Your task to perform on an android device: Check the news Image 0: 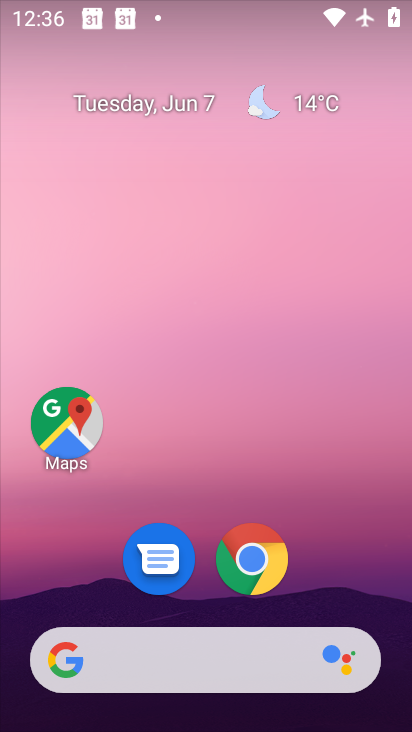
Step 0: drag from (6, 318) to (392, 264)
Your task to perform on an android device: Check the news Image 1: 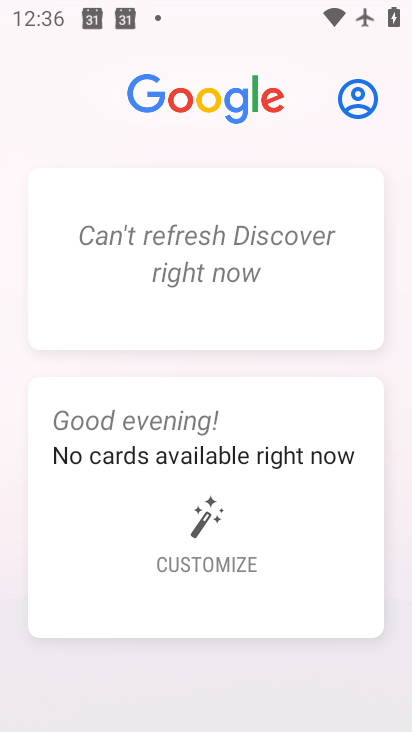
Step 1: drag from (271, 655) to (212, 158)
Your task to perform on an android device: Check the news Image 2: 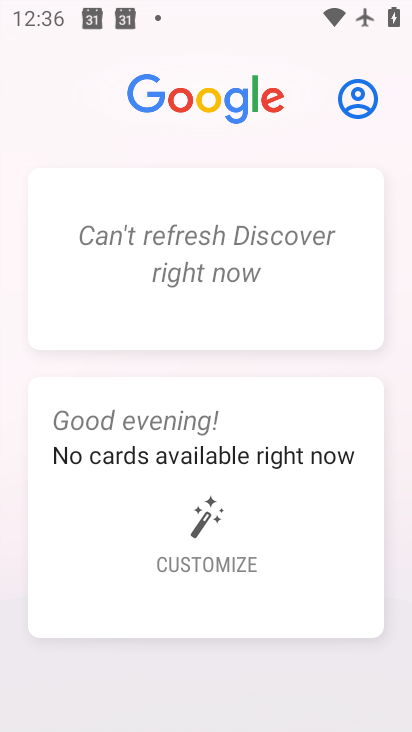
Step 2: press home button
Your task to perform on an android device: Check the news Image 3: 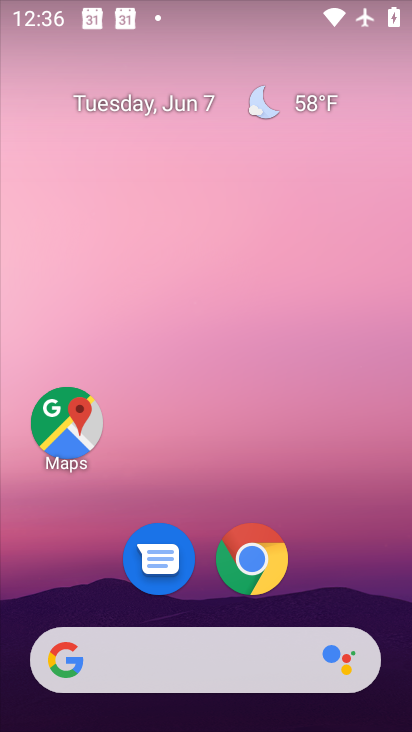
Step 3: click (177, 659)
Your task to perform on an android device: Check the news Image 4: 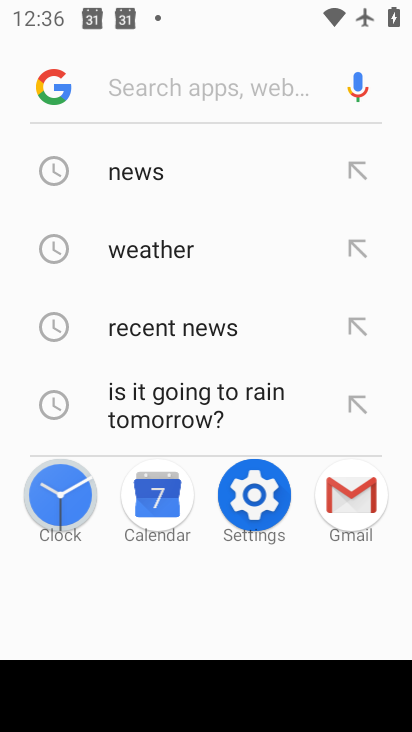
Step 4: click (136, 175)
Your task to perform on an android device: Check the news Image 5: 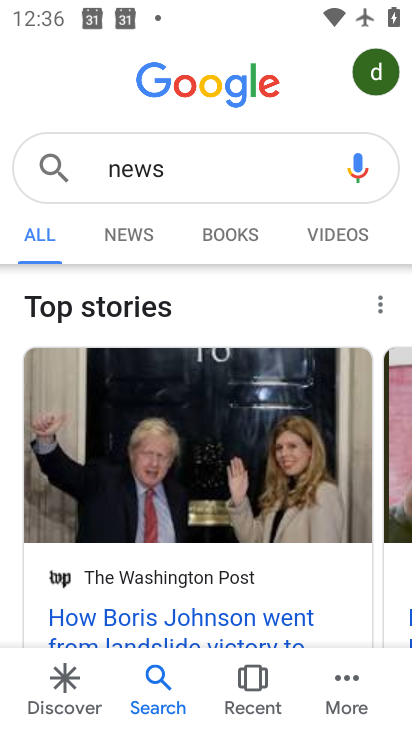
Step 5: task complete